Your task to perform on an android device: open device folders in google photos Image 0: 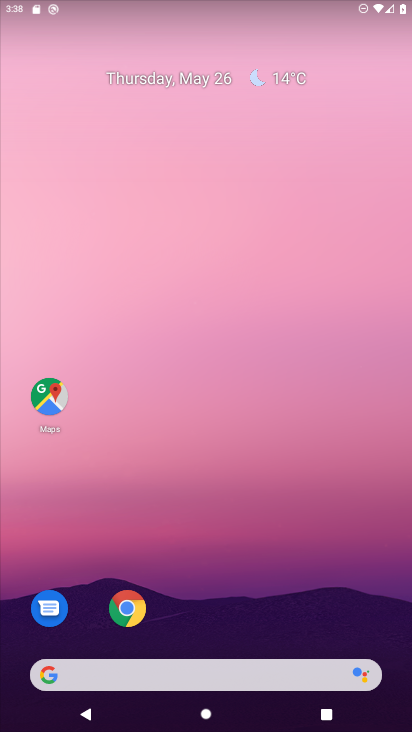
Step 0: drag from (269, 618) to (328, 171)
Your task to perform on an android device: open device folders in google photos Image 1: 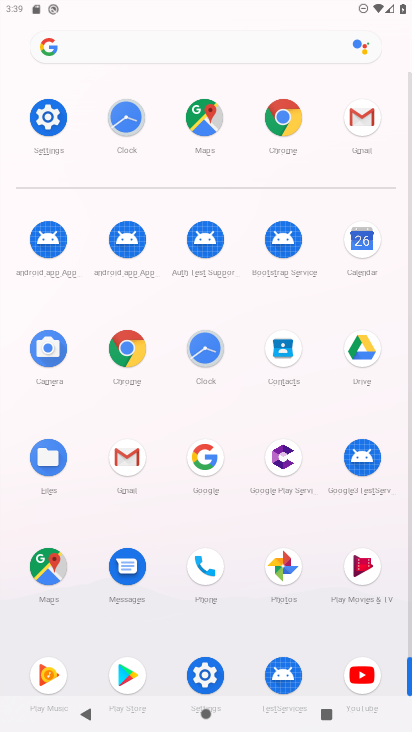
Step 1: click (280, 569)
Your task to perform on an android device: open device folders in google photos Image 2: 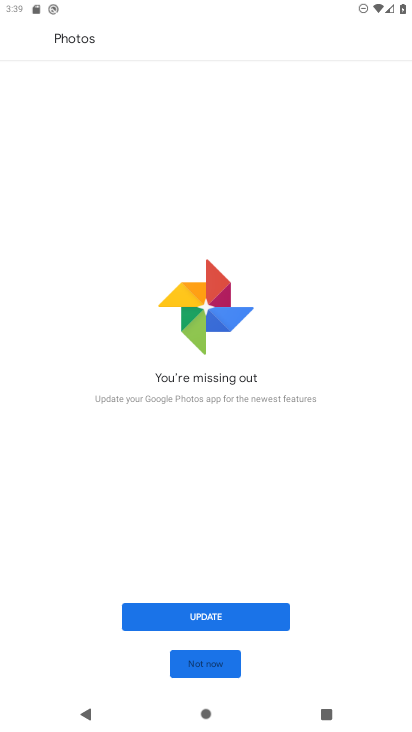
Step 2: click (222, 617)
Your task to perform on an android device: open device folders in google photos Image 3: 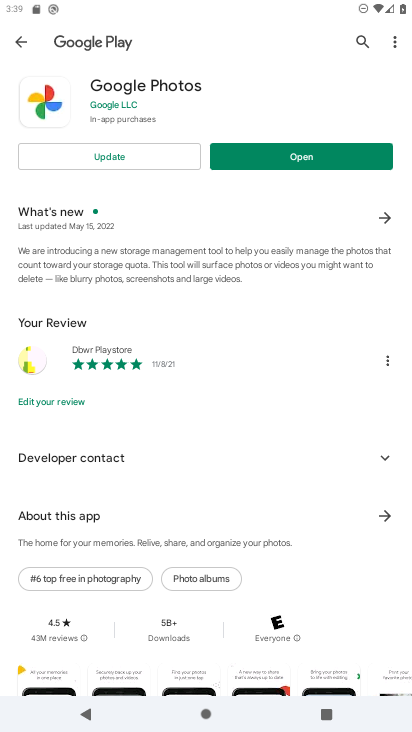
Step 3: click (112, 159)
Your task to perform on an android device: open device folders in google photos Image 4: 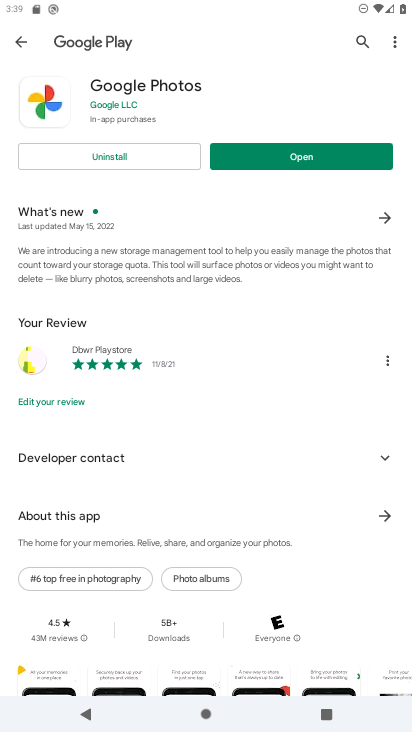
Step 4: click (283, 165)
Your task to perform on an android device: open device folders in google photos Image 5: 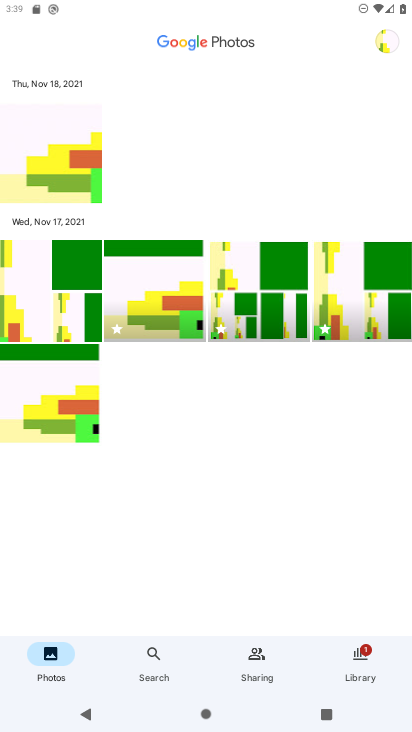
Step 5: click (382, 35)
Your task to perform on an android device: open device folders in google photos Image 6: 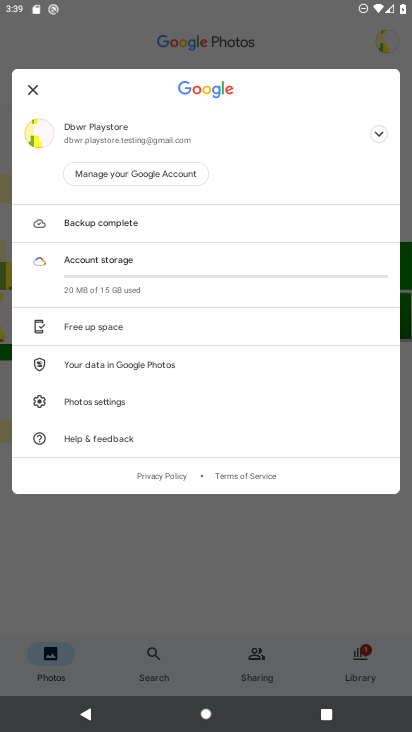
Step 6: task complete